Your task to perform on an android device: toggle pop-ups in chrome Image 0: 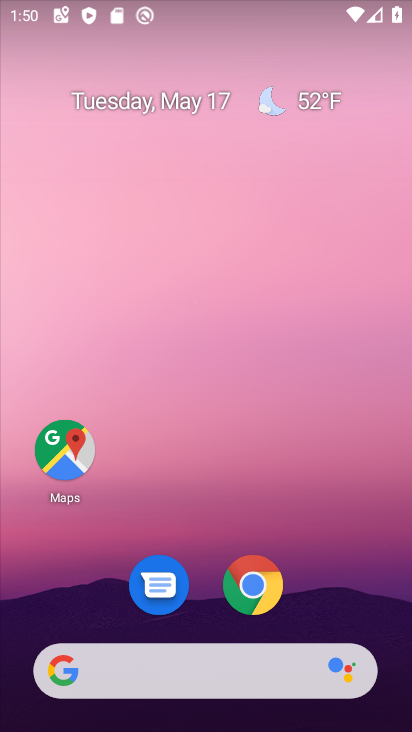
Step 0: click (254, 581)
Your task to perform on an android device: toggle pop-ups in chrome Image 1: 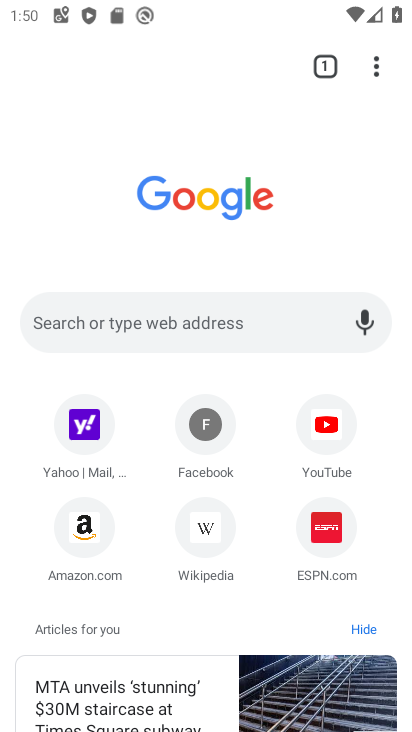
Step 1: click (374, 66)
Your task to perform on an android device: toggle pop-ups in chrome Image 2: 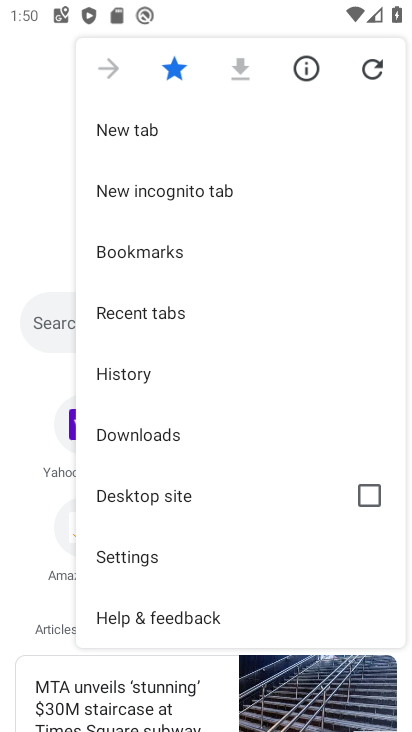
Step 2: click (152, 548)
Your task to perform on an android device: toggle pop-ups in chrome Image 3: 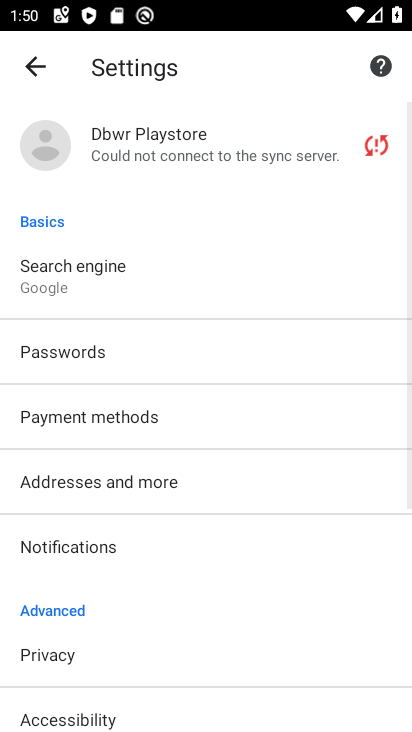
Step 3: drag from (215, 582) to (237, 311)
Your task to perform on an android device: toggle pop-ups in chrome Image 4: 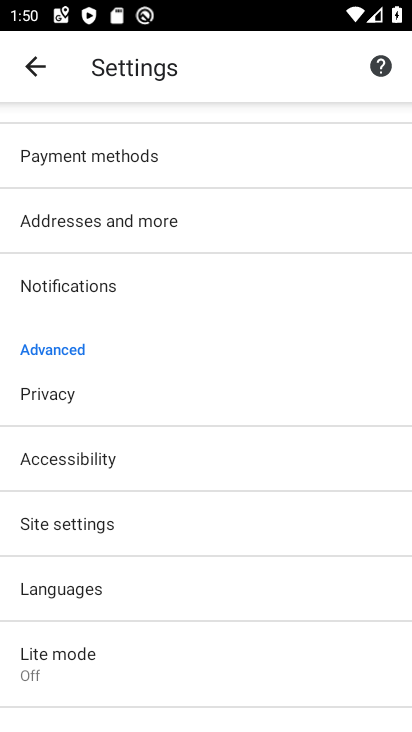
Step 4: click (167, 514)
Your task to perform on an android device: toggle pop-ups in chrome Image 5: 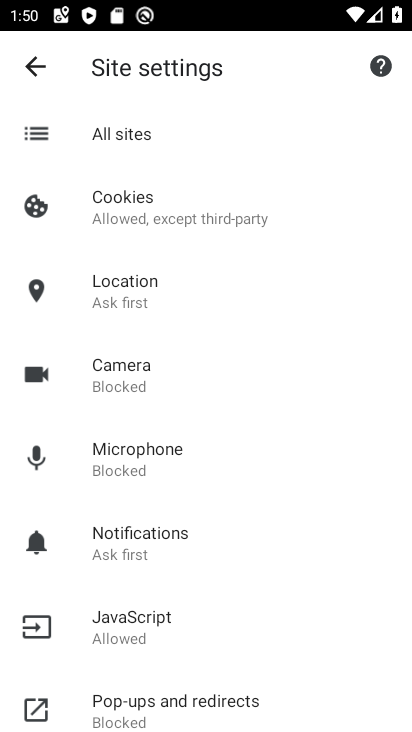
Step 5: drag from (239, 623) to (264, 444)
Your task to perform on an android device: toggle pop-ups in chrome Image 6: 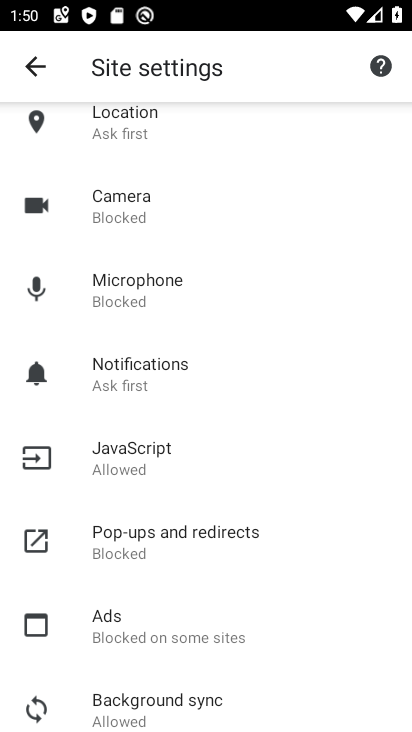
Step 6: click (259, 535)
Your task to perform on an android device: toggle pop-ups in chrome Image 7: 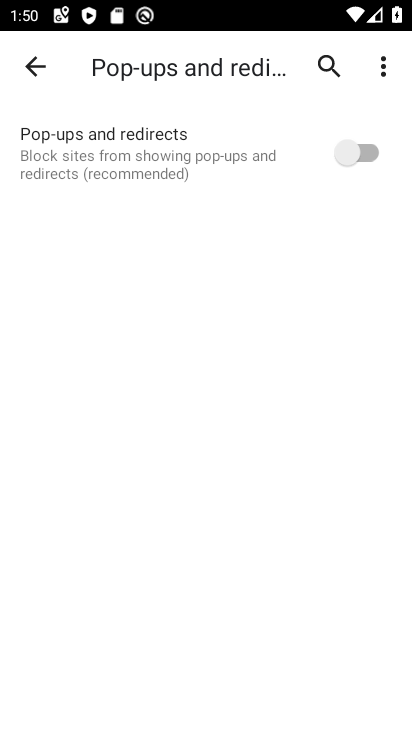
Step 7: click (361, 146)
Your task to perform on an android device: toggle pop-ups in chrome Image 8: 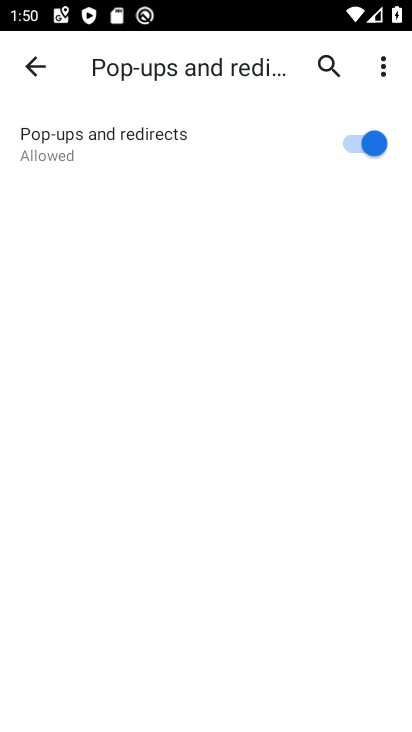
Step 8: task complete